Your task to perform on an android device: turn off notifications settings in the gmail app Image 0: 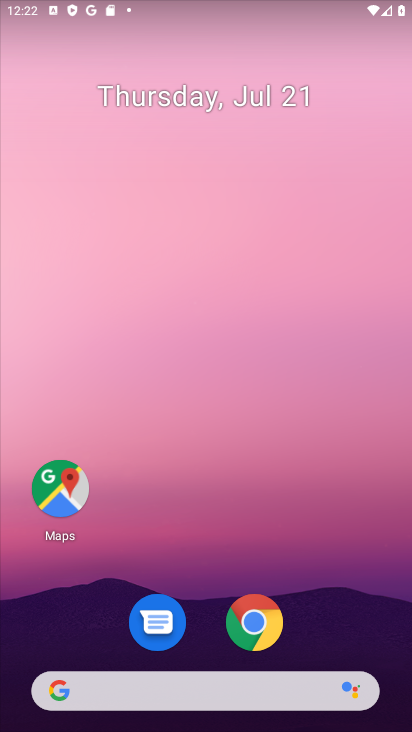
Step 0: drag from (232, 690) to (348, 286)
Your task to perform on an android device: turn off notifications settings in the gmail app Image 1: 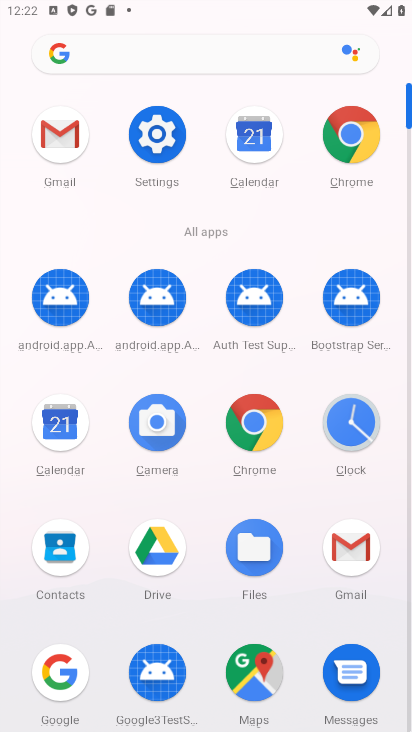
Step 1: click (62, 150)
Your task to perform on an android device: turn off notifications settings in the gmail app Image 2: 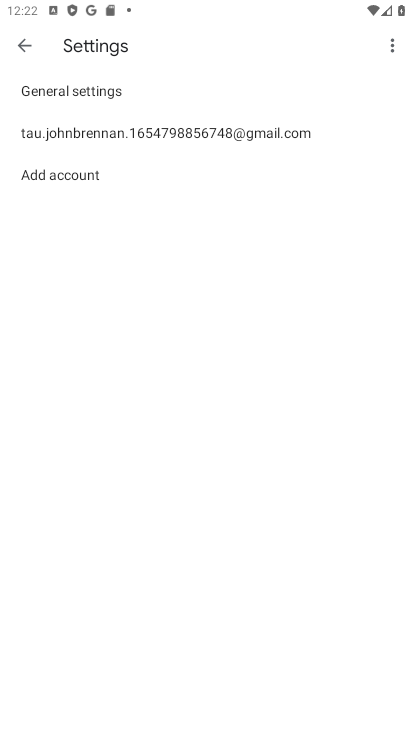
Step 2: click (70, 131)
Your task to perform on an android device: turn off notifications settings in the gmail app Image 3: 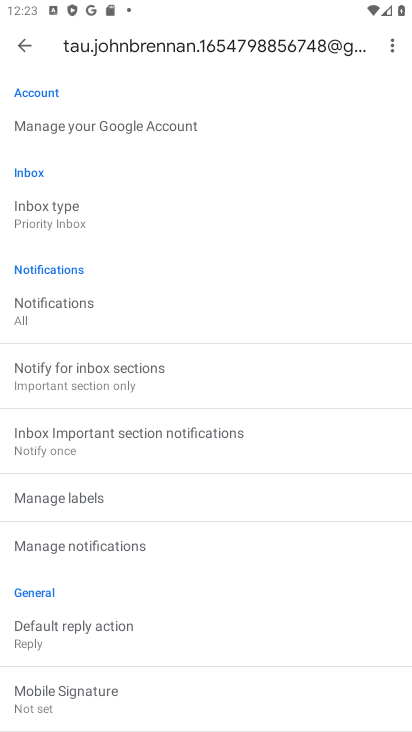
Step 3: click (75, 317)
Your task to perform on an android device: turn off notifications settings in the gmail app Image 4: 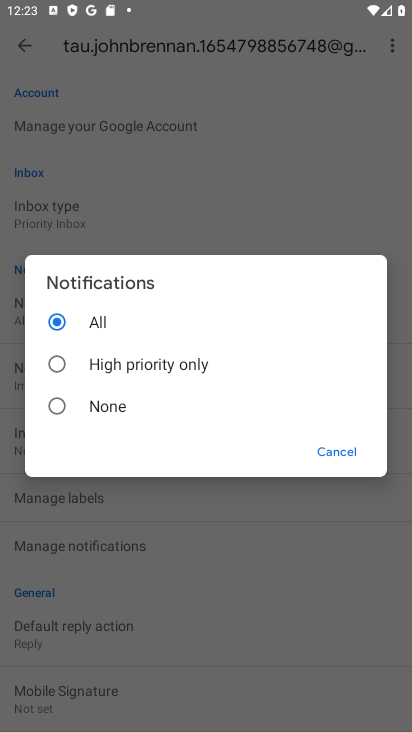
Step 4: click (98, 411)
Your task to perform on an android device: turn off notifications settings in the gmail app Image 5: 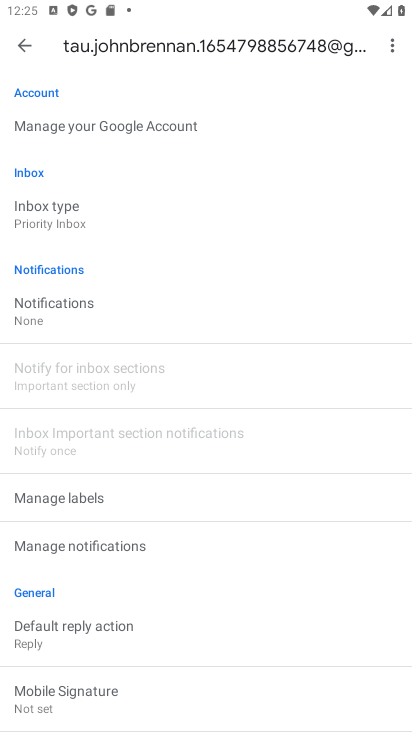
Step 5: task complete